Your task to perform on an android device: Go to ESPN.com Image 0: 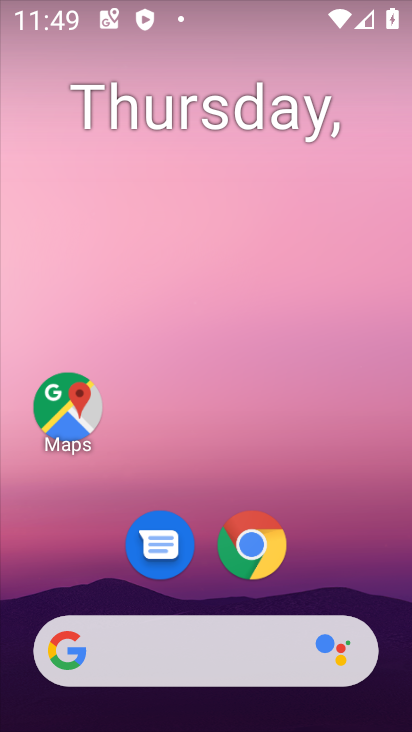
Step 0: click (256, 533)
Your task to perform on an android device: Go to ESPN.com Image 1: 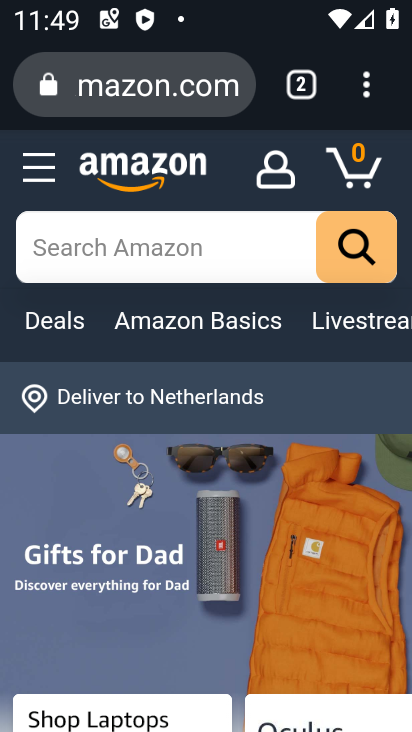
Step 1: click (347, 66)
Your task to perform on an android device: Go to ESPN.com Image 2: 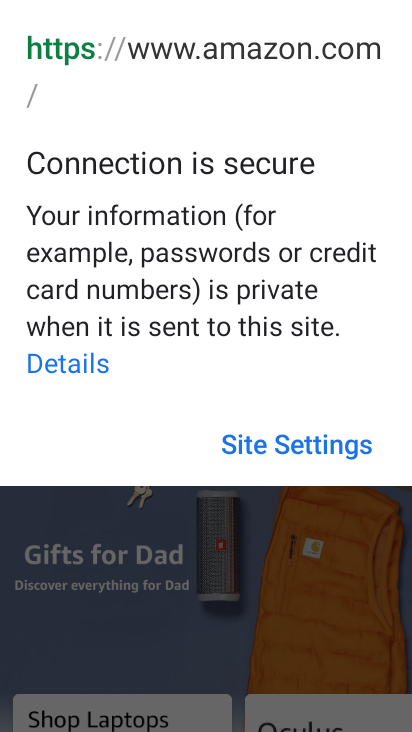
Step 2: press back button
Your task to perform on an android device: Go to ESPN.com Image 3: 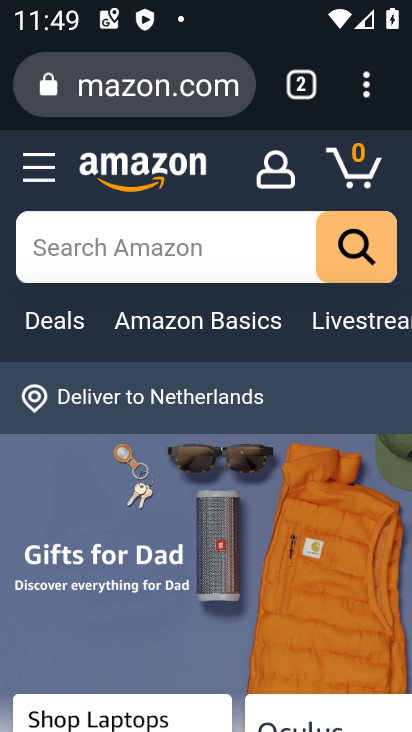
Step 3: click (387, 78)
Your task to perform on an android device: Go to ESPN.com Image 4: 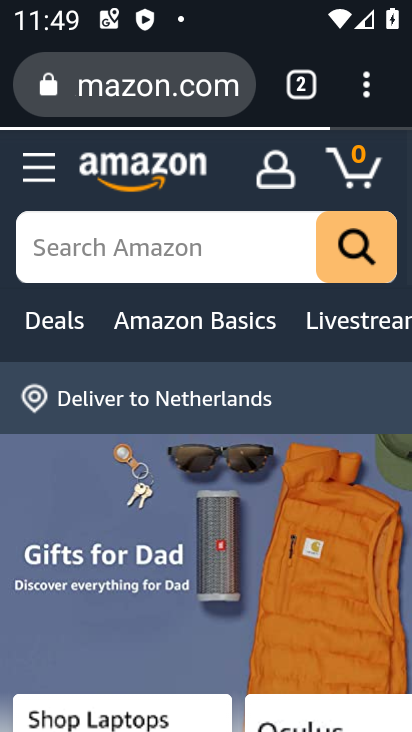
Step 4: click (375, 92)
Your task to perform on an android device: Go to ESPN.com Image 5: 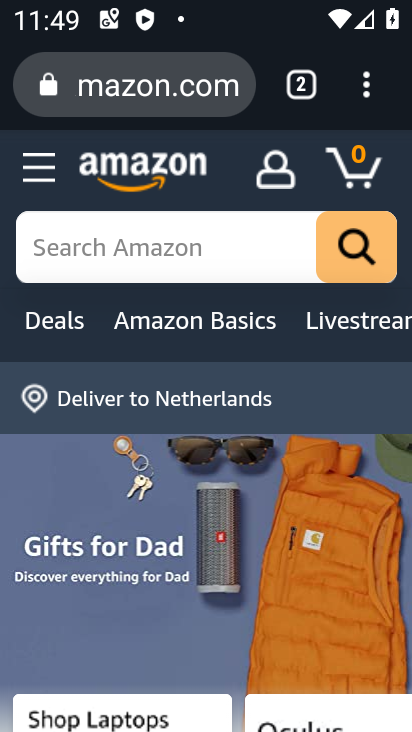
Step 5: click (372, 88)
Your task to perform on an android device: Go to ESPN.com Image 6: 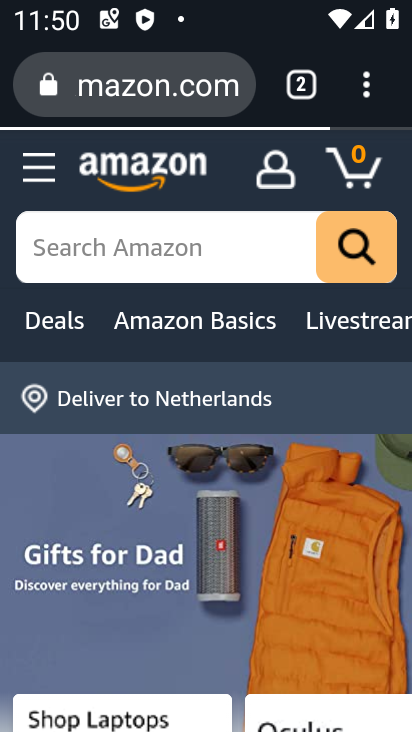
Step 6: click (369, 88)
Your task to perform on an android device: Go to ESPN.com Image 7: 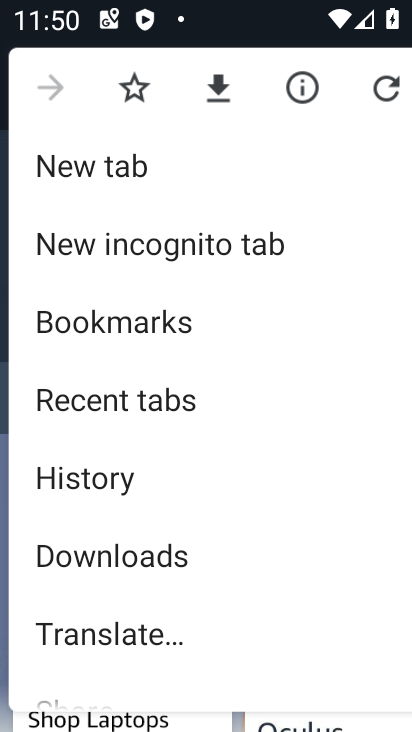
Step 7: click (123, 167)
Your task to perform on an android device: Go to ESPN.com Image 8: 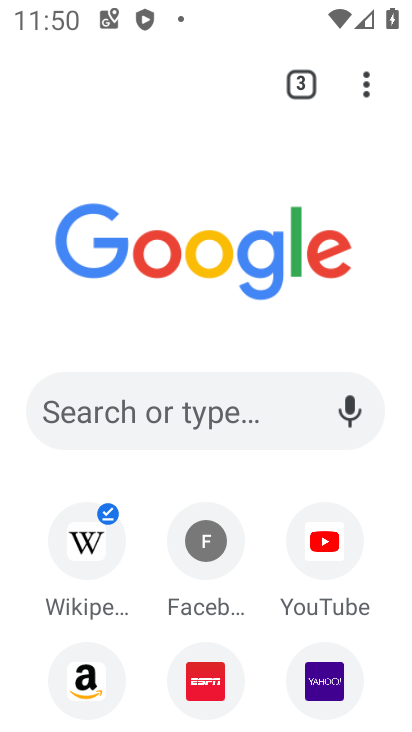
Step 8: click (197, 668)
Your task to perform on an android device: Go to ESPN.com Image 9: 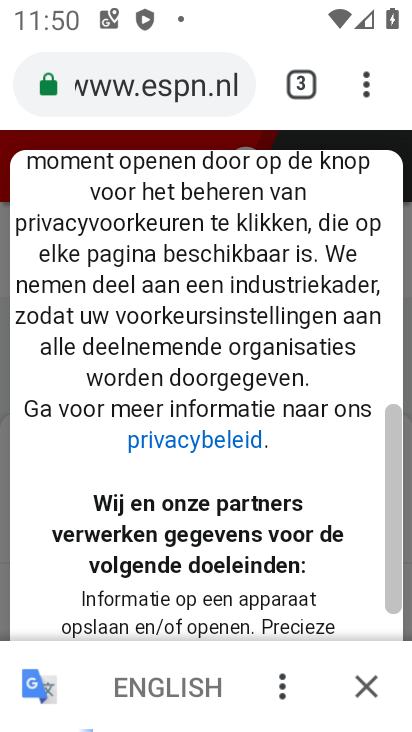
Step 9: click (355, 678)
Your task to perform on an android device: Go to ESPN.com Image 10: 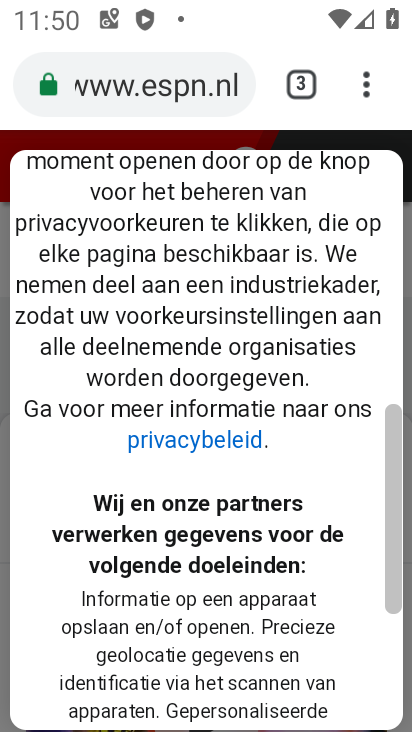
Step 10: task complete